Your task to perform on an android device: Toggle the flashlight Image 0: 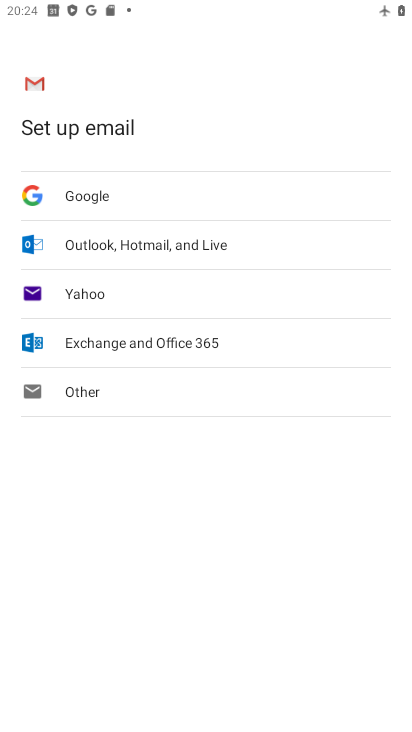
Step 0: press home button
Your task to perform on an android device: Toggle the flashlight Image 1: 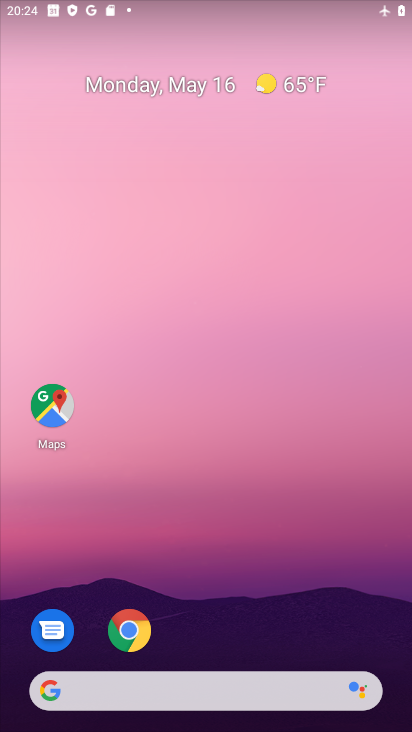
Step 1: drag from (225, 639) to (223, 178)
Your task to perform on an android device: Toggle the flashlight Image 2: 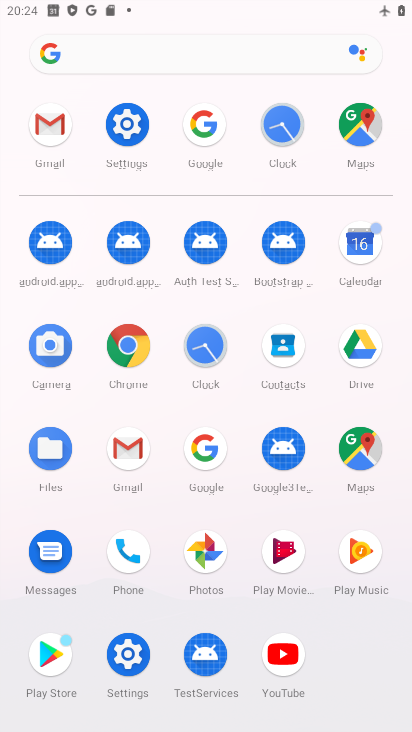
Step 2: click (144, 110)
Your task to perform on an android device: Toggle the flashlight Image 3: 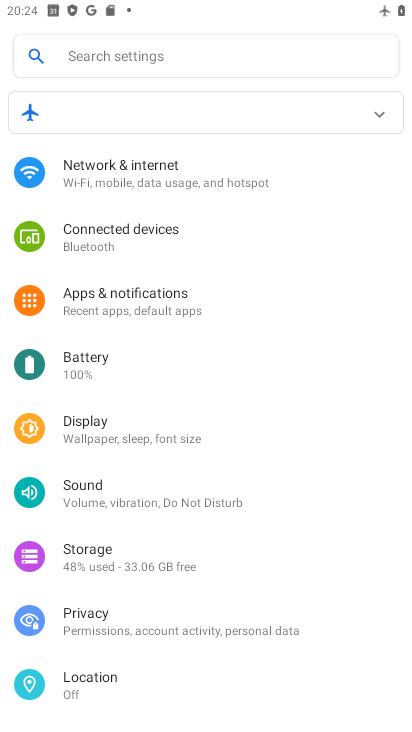
Step 3: task complete